Your task to perform on an android device: open device folders in google photos Image 0: 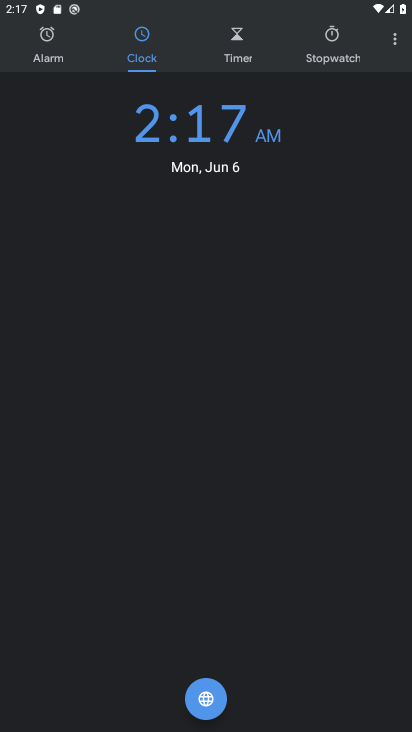
Step 0: press home button
Your task to perform on an android device: open device folders in google photos Image 1: 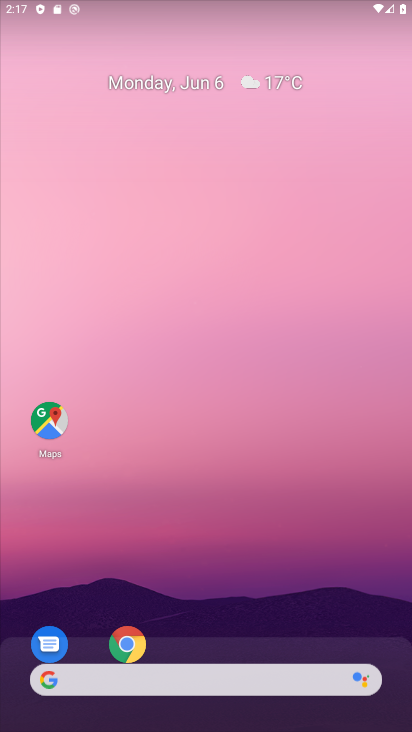
Step 1: drag from (203, 635) to (232, 0)
Your task to perform on an android device: open device folders in google photos Image 2: 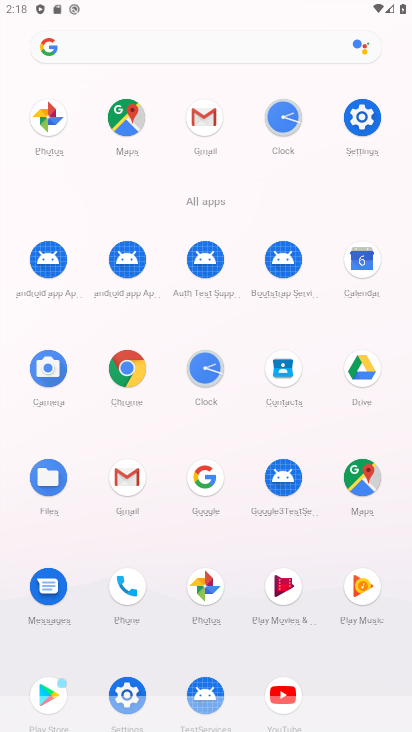
Step 2: click (202, 573)
Your task to perform on an android device: open device folders in google photos Image 3: 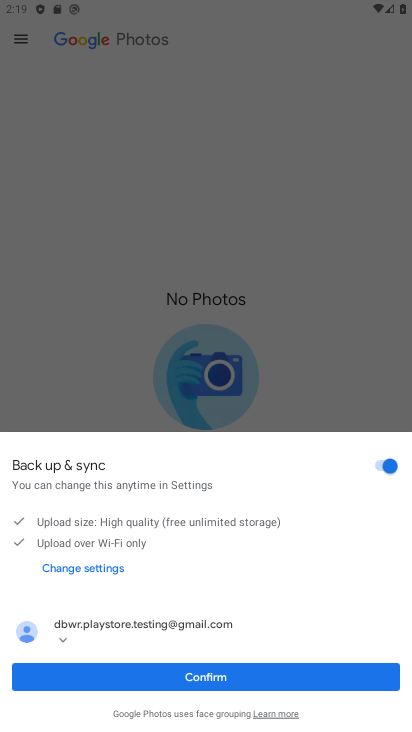
Step 3: click (205, 678)
Your task to perform on an android device: open device folders in google photos Image 4: 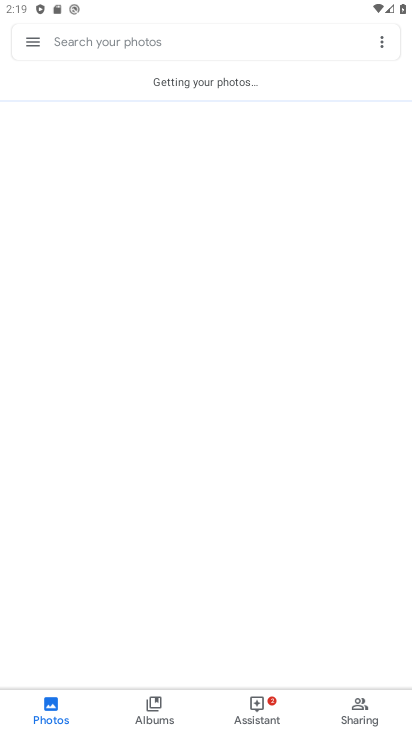
Step 4: click (40, 41)
Your task to perform on an android device: open device folders in google photos Image 5: 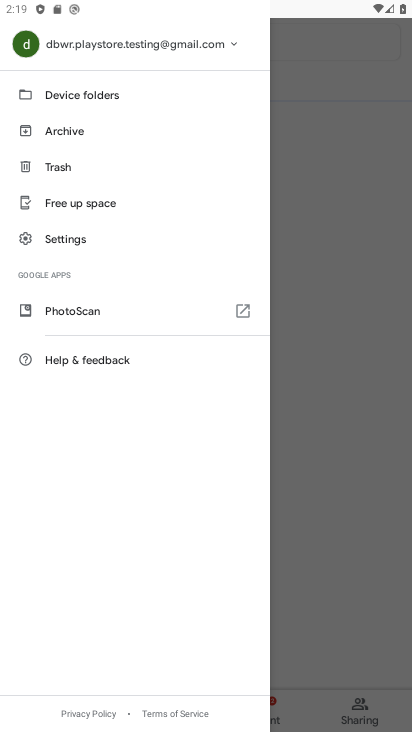
Step 5: click (134, 95)
Your task to perform on an android device: open device folders in google photos Image 6: 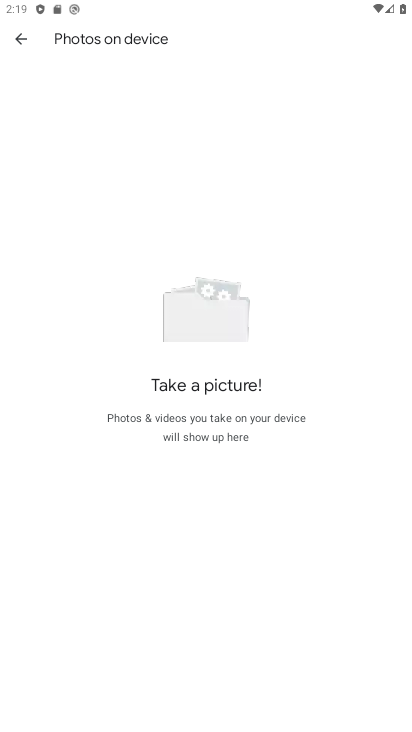
Step 6: task complete